Your task to perform on an android device: refresh tabs in the chrome app Image 0: 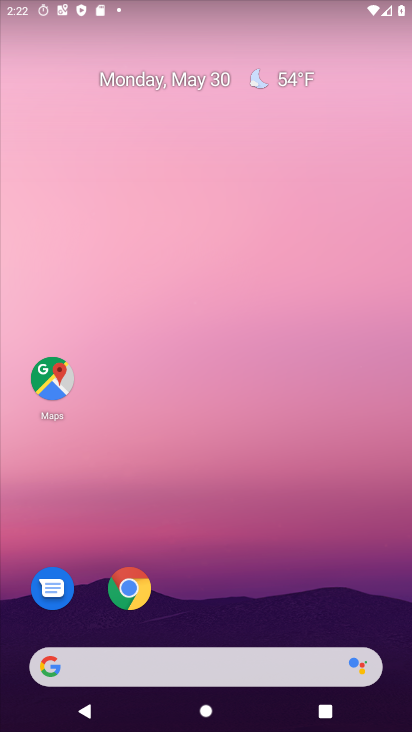
Step 0: drag from (228, 593) to (277, 96)
Your task to perform on an android device: refresh tabs in the chrome app Image 1: 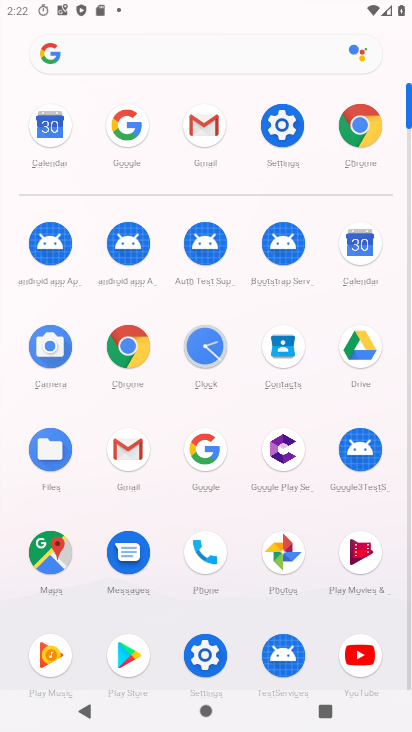
Step 1: click (122, 346)
Your task to perform on an android device: refresh tabs in the chrome app Image 2: 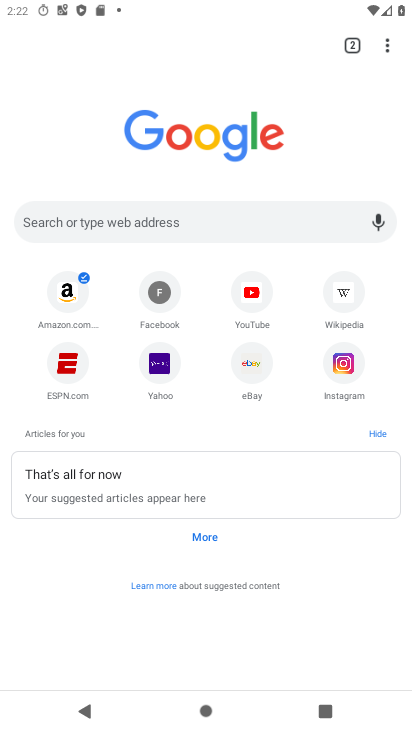
Step 2: click (376, 50)
Your task to perform on an android device: refresh tabs in the chrome app Image 3: 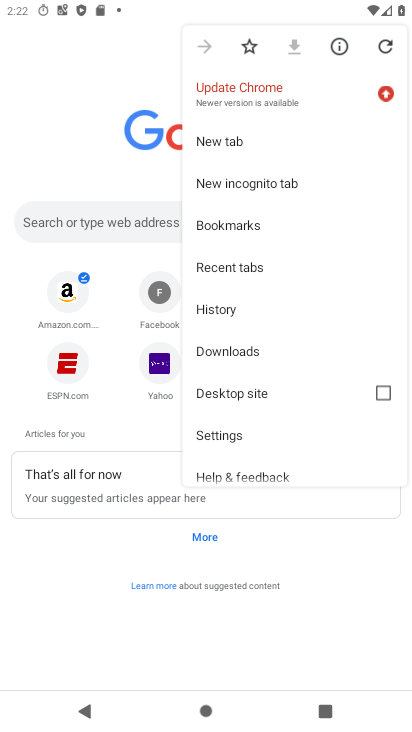
Step 3: click (385, 44)
Your task to perform on an android device: refresh tabs in the chrome app Image 4: 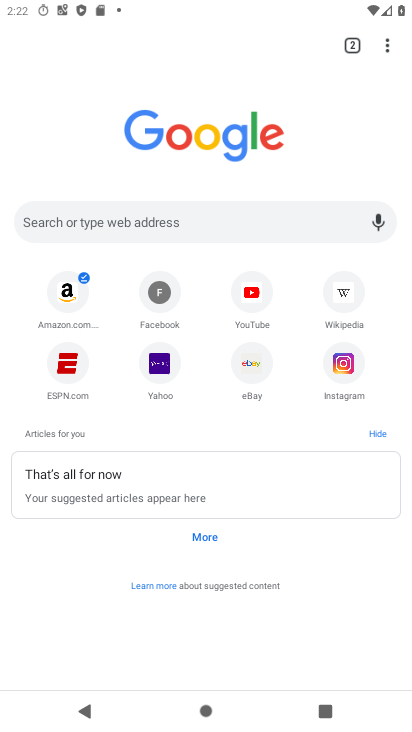
Step 4: task complete